Your task to perform on an android device: allow cookies in the chrome app Image 0: 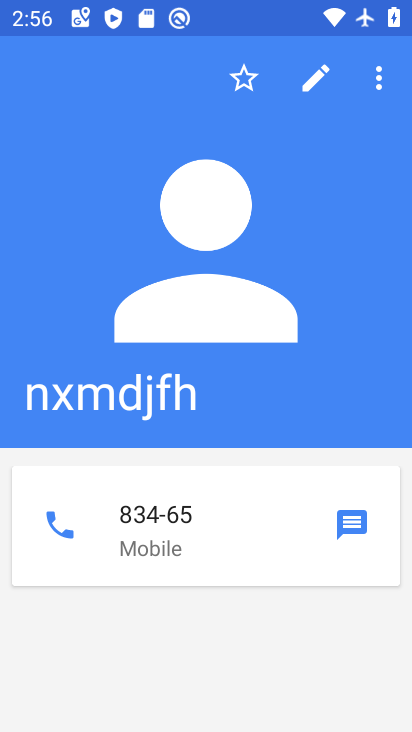
Step 0: press home button
Your task to perform on an android device: allow cookies in the chrome app Image 1: 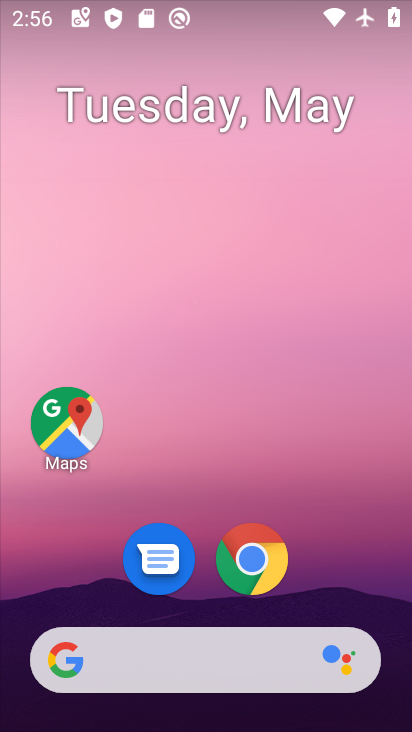
Step 1: drag from (166, 662) to (302, 263)
Your task to perform on an android device: allow cookies in the chrome app Image 2: 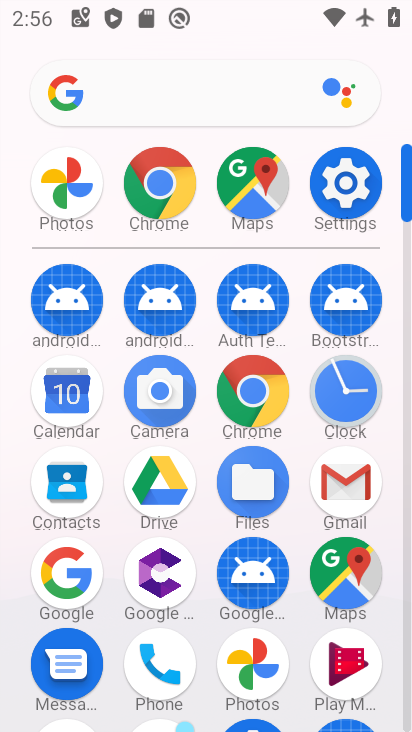
Step 2: click (170, 199)
Your task to perform on an android device: allow cookies in the chrome app Image 3: 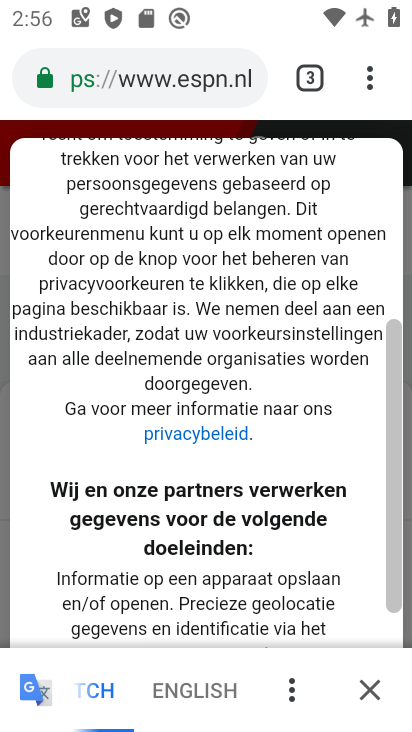
Step 3: drag from (370, 84) to (163, 622)
Your task to perform on an android device: allow cookies in the chrome app Image 4: 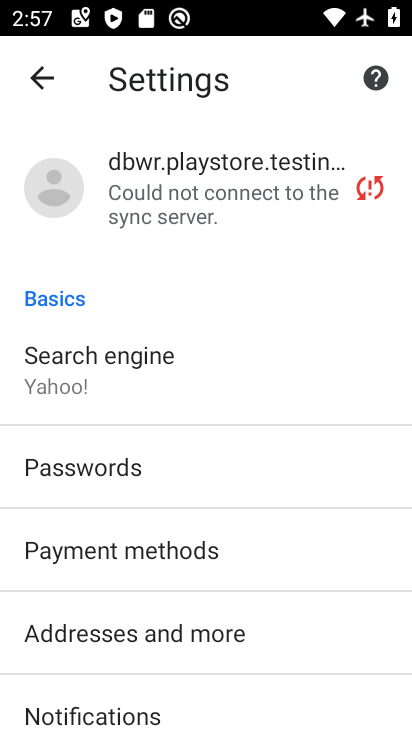
Step 4: drag from (163, 684) to (399, 194)
Your task to perform on an android device: allow cookies in the chrome app Image 5: 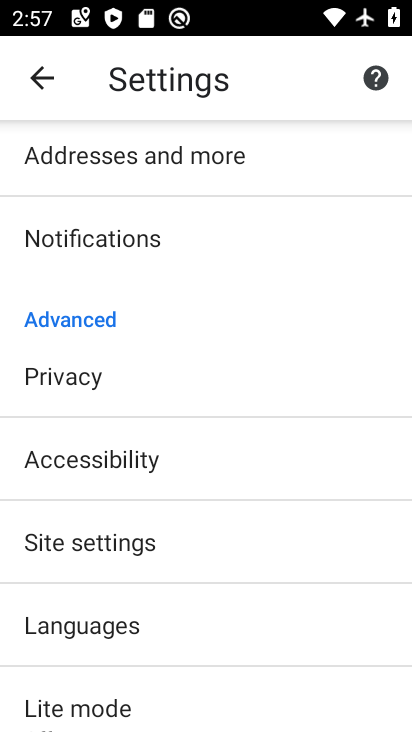
Step 5: click (138, 547)
Your task to perform on an android device: allow cookies in the chrome app Image 6: 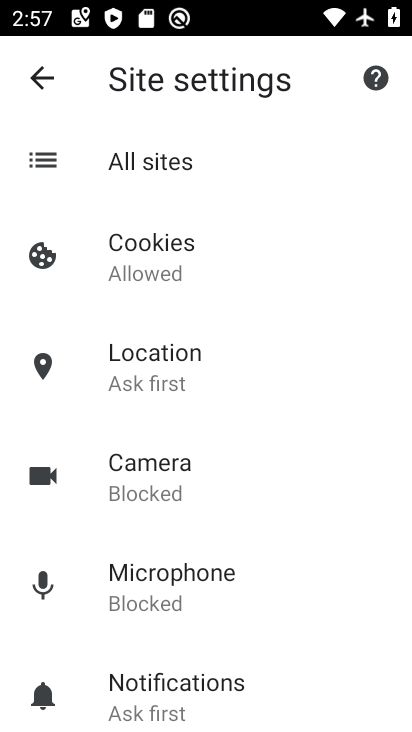
Step 6: click (170, 266)
Your task to perform on an android device: allow cookies in the chrome app Image 7: 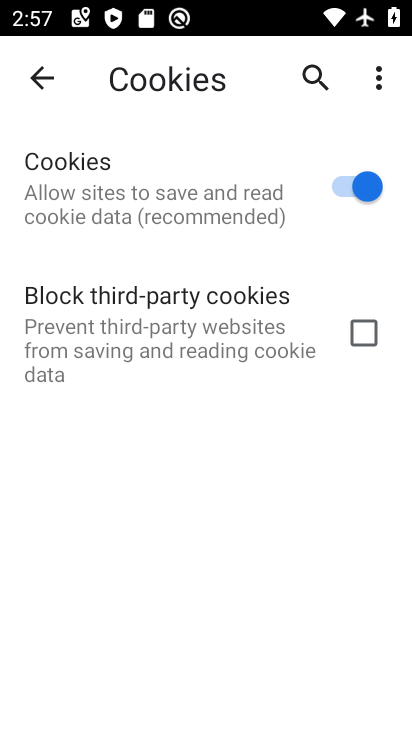
Step 7: task complete